Your task to perform on an android device: Search for a small bookcase on Ikea.com Image 0: 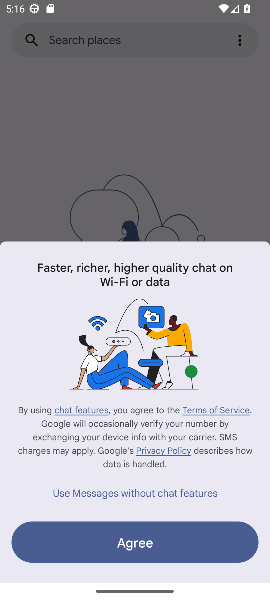
Step 0: press home button
Your task to perform on an android device: Search for a small bookcase on Ikea.com Image 1: 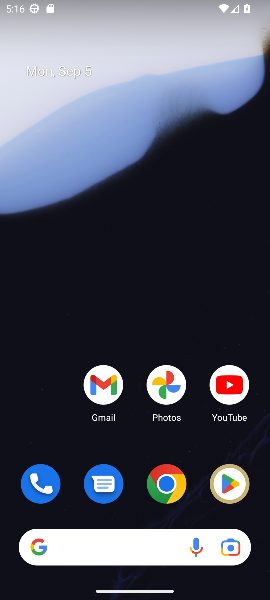
Step 1: click (172, 482)
Your task to perform on an android device: Search for a small bookcase on Ikea.com Image 2: 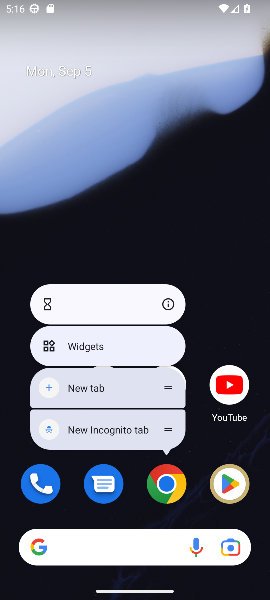
Step 2: click (166, 483)
Your task to perform on an android device: Search for a small bookcase on Ikea.com Image 3: 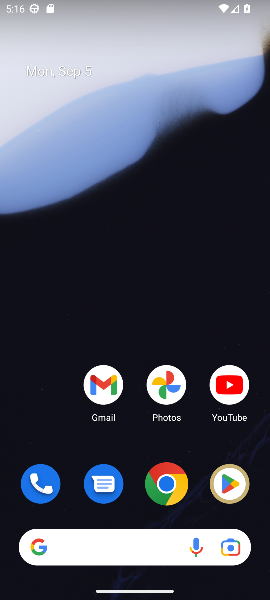
Step 3: click (166, 483)
Your task to perform on an android device: Search for a small bookcase on Ikea.com Image 4: 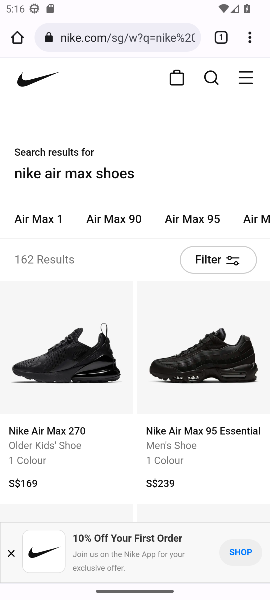
Step 4: click (139, 31)
Your task to perform on an android device: Search for a small bookcase on Ikea.com Image 5: 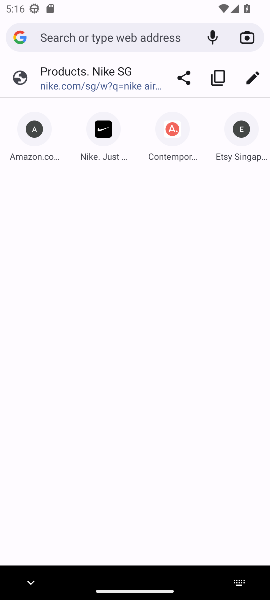
Step 5: type "Ikea.com"
Your task to perform on an android device: Search for a small bookcase on Ikea.com Image 6: 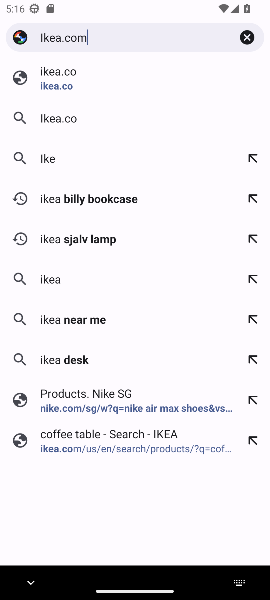
Step 6: press enter
Your task to perform on an android device: Search for a small bookcase on Ikea.com Image 7: 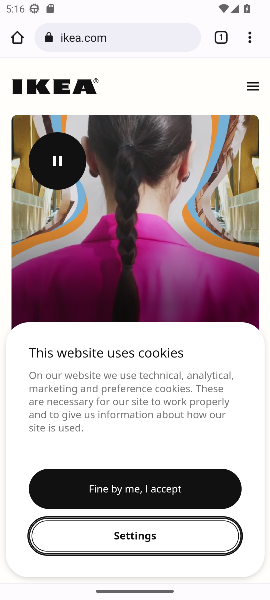
Step 7: drag from (136, 310) to (212, 191)
Your task to perform on an android device: Search for a small bookcase on Ikea.com Image 8: 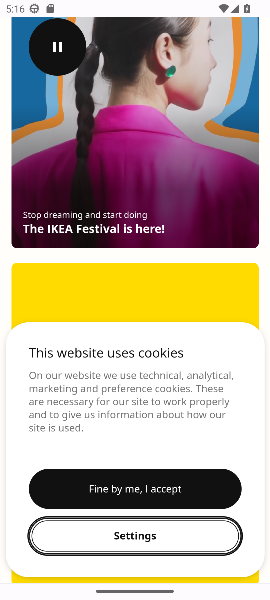
Step 8: click (145, 494)
Your task to perform on an android device: Search for a small bookcase on Ikea.com Image 9: 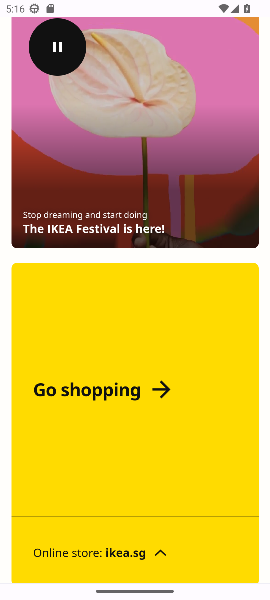
Step 9: click (114, 388)
Your task to perform on an android device: Search for a small bookcase on Ikea.com Image 10: 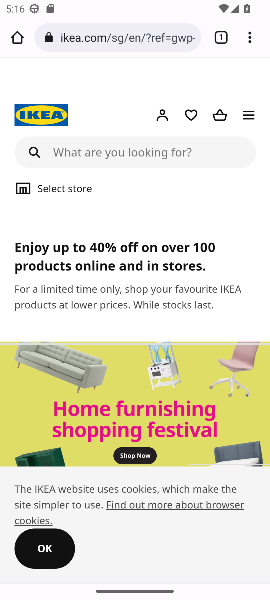
Step 10: click (131, 147)
Your task to perform on an android device: Search for a small bookcase on Ikea.com Image 11: 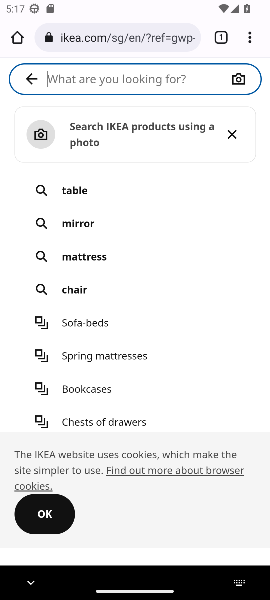
Step 11: type " small bookcase"
Your task to perform on an android device: Search for a small bookcase on Ikea.com Image 12: 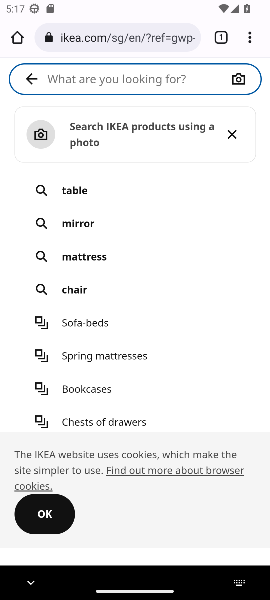
Step 12: press enter
Your task to perform on an android device: Search for a small bookcase on Ikea.com Image 13: 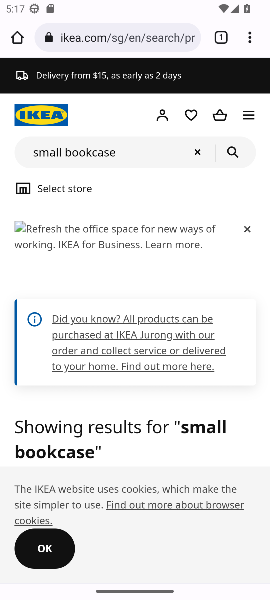
Step 13: click (230, 150)
Your task to perform on an android device: Search for a small bookcase on Ikea.com Image 14: 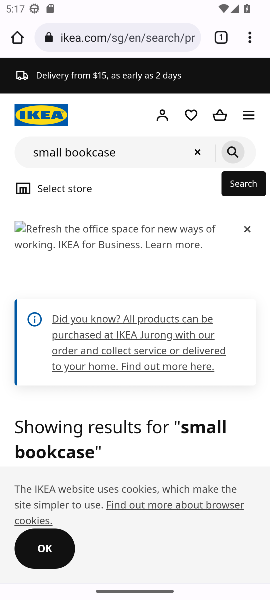
Step 14: task complete